Your task to perform on an android device: toggle show notifications on the lock screen Image 0: 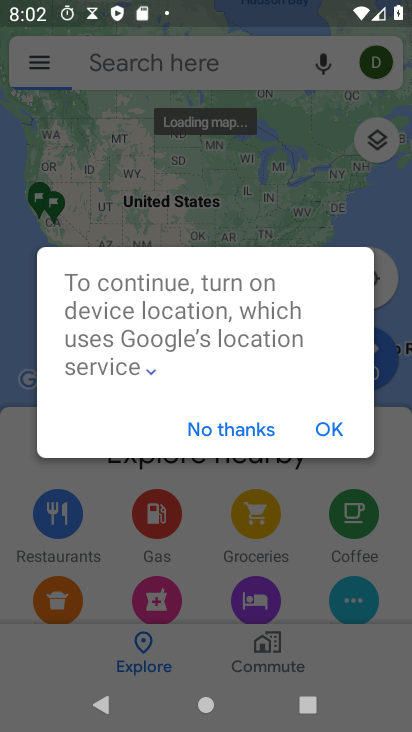
Step 0: click (320, 421)
Your task to perform on an android device: toggle show notifications on the lock screen Image 1: 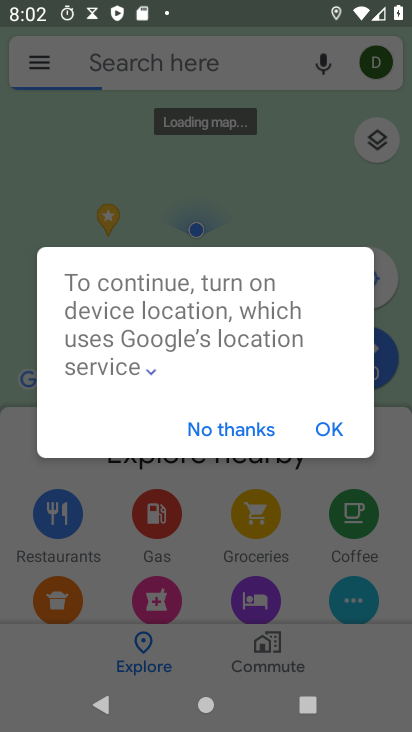
Step 1: press home button
Your task to perform on an android device: toggle show notifications on the lock screen Image 2: 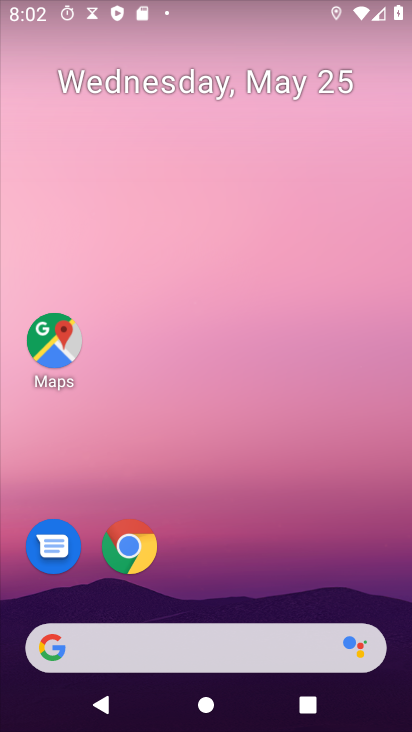
Step 2: drag from (240, 564) to (101, 6)
Your task to perform on an android device: toggle show notifications on the lock screen Image 3: 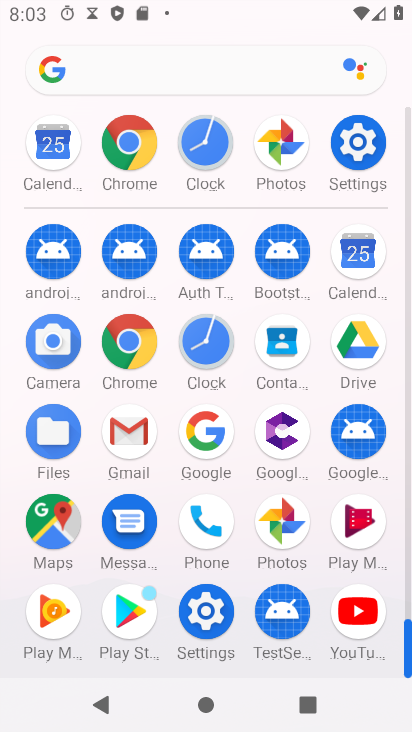
Step 3: click (345, 166)
Your task to perform on an android device: toggle show notifications on the lock screen Image 4: 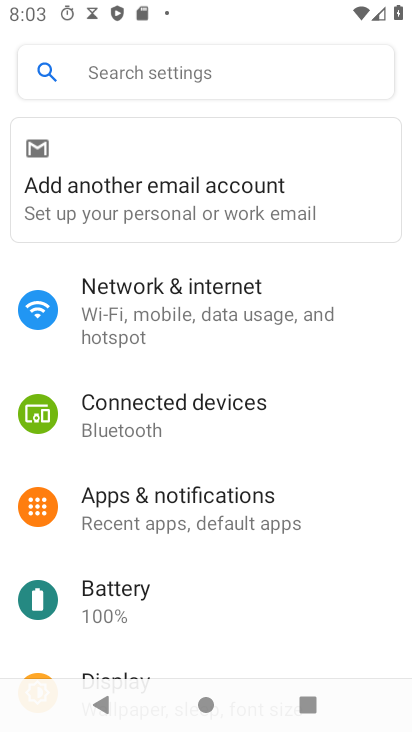
Step 4: click (212, 512)
Your task to perform on an android device: toggle show notifications on the lock screen Image 5: 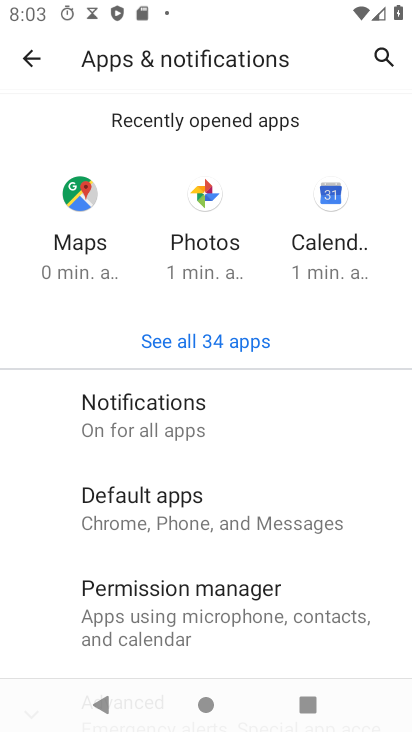
Step 5: click (174, 415)
Your task to perform on an android device: toggle show notifications on the lock screen Image 6: 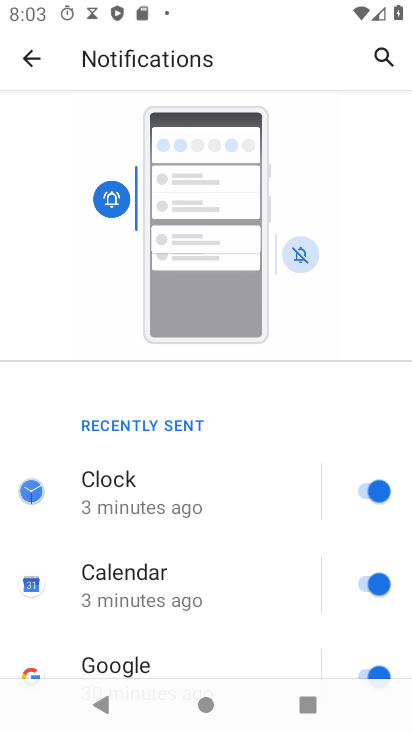
Step 6: drag from (250, 490) to (170, 219)
Your task to perform on an android device: toggle show notifications on the lock screen Image 7: 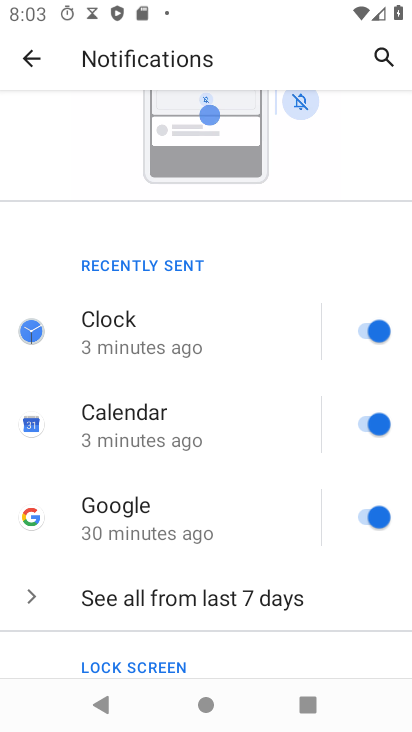
Step 7: drag from (195, 559) to (159, 216)
Your task to perform on an android device: toggle show notifications on the lock screen Image 8: 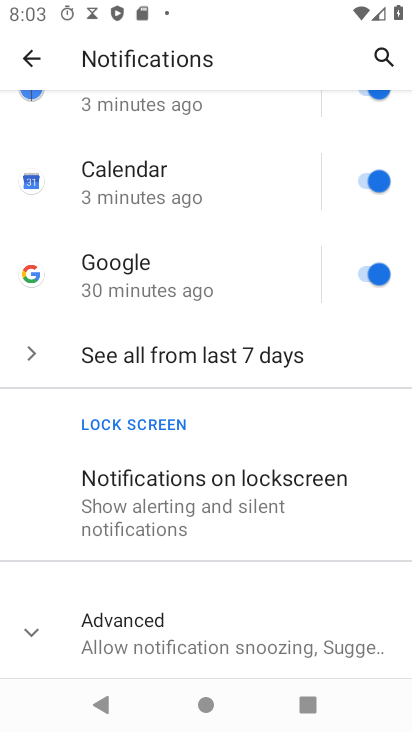
Step 8: click (96, 527)
Your task to perform on an android device: toggle show notifications on the lock screen Image 9: 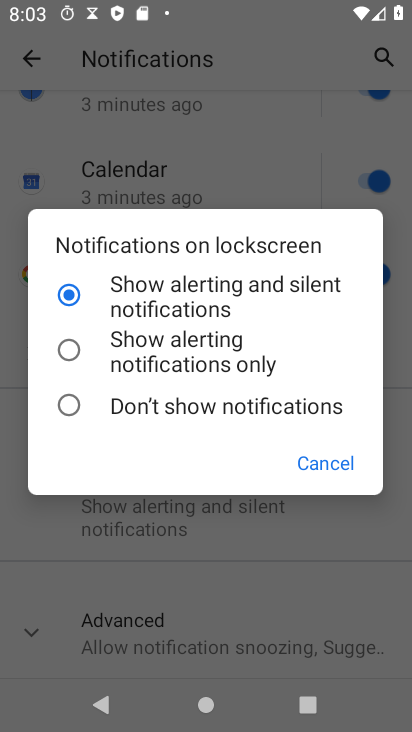
Step 9: click (66, 399)
Your task to perform on an android device: toggle show notifications on the lock screen Image 10: 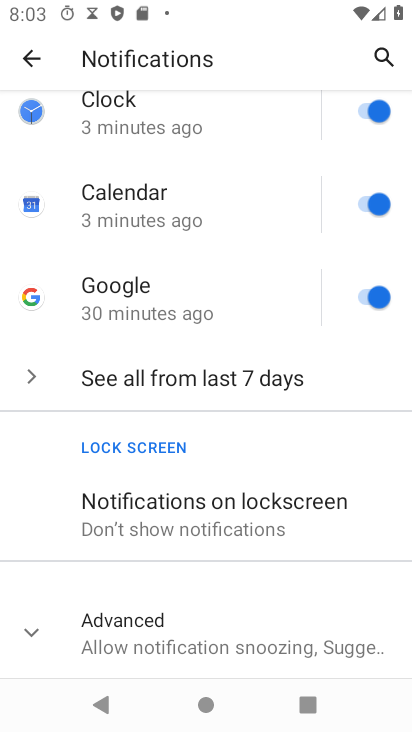
Step 10: task complete